Your task to perform on an android device: Open Maps and search for coffee Image 0: 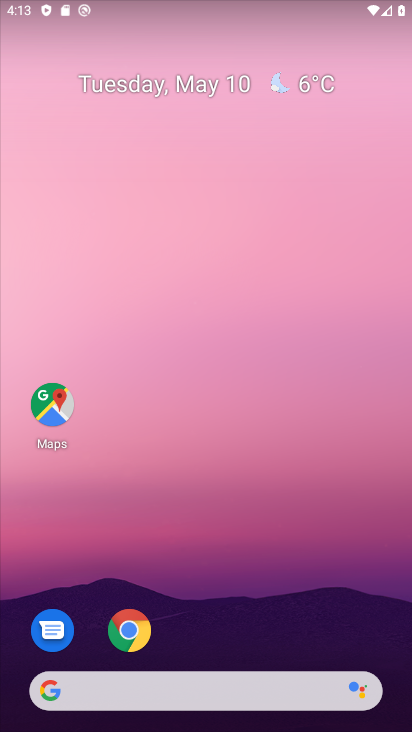
Step 0: click (50, 398)
Your task to perform on an android device: Open Maps and search for coffee Image 1: 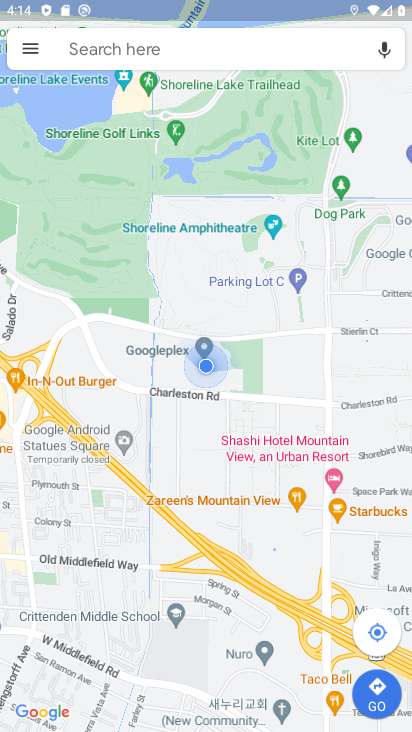
Step 1: click (236, 38)
Your task to perform on an android device: Open Maps and search for coffee Image 2: 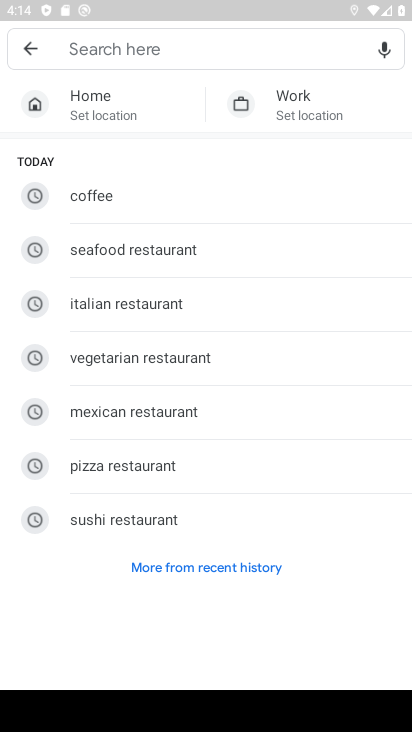
Step 2: type "coffee"
Your task to perform on an android device: Open Maps and search for coffee Image 3: 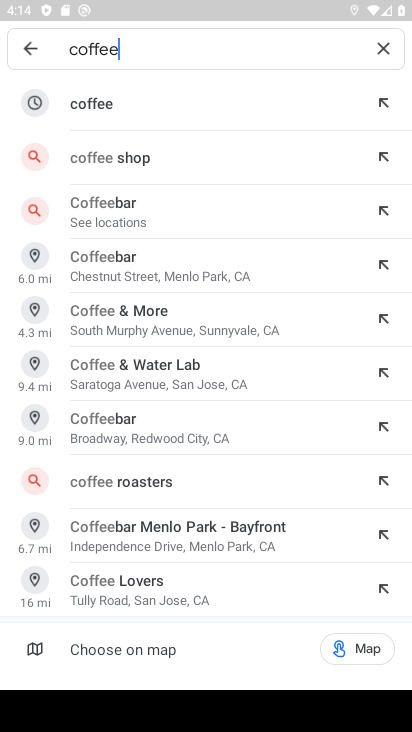
Step 3: click (120, 98)
Your task to perform on an android device: Open Maps and search for coffee Image 4: 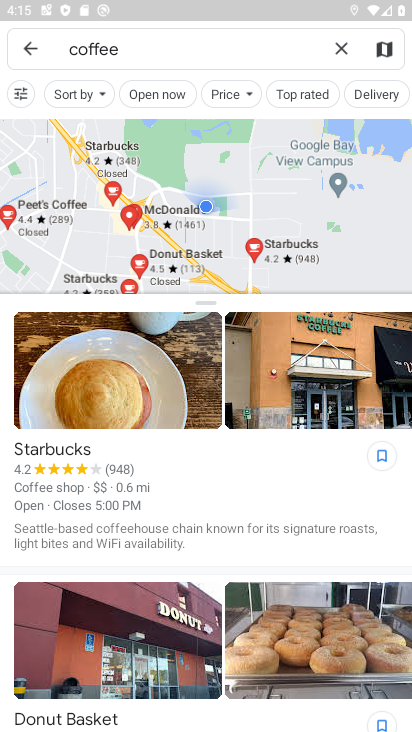
Step 4: task complete